Your task to perform on an android device: toggle sleep mode Image 0: 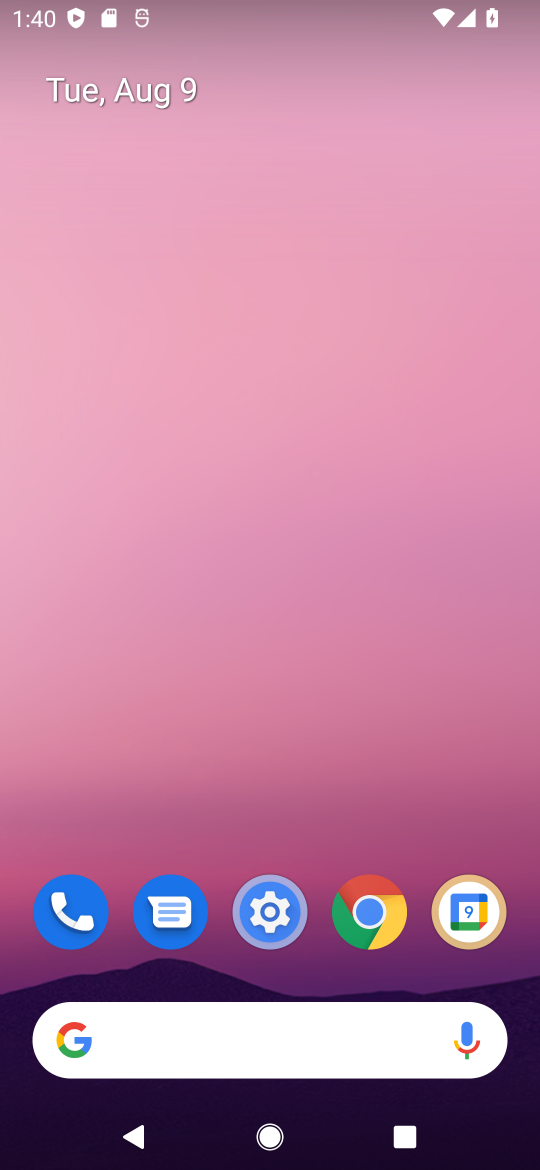
Step 0: click (269, 913)
Your task to perform on an android device: toggle sleep mode Image 1: 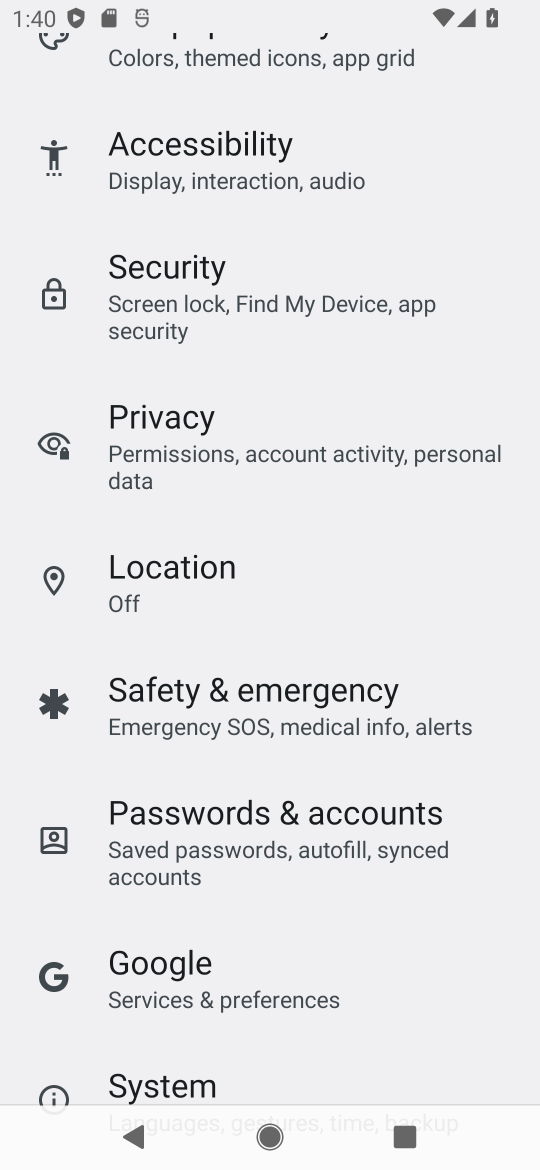
Step 1: drag from (287, 246) to (497, 1147)
Your task to perform on an android device: toggle sleep mode Image 2: 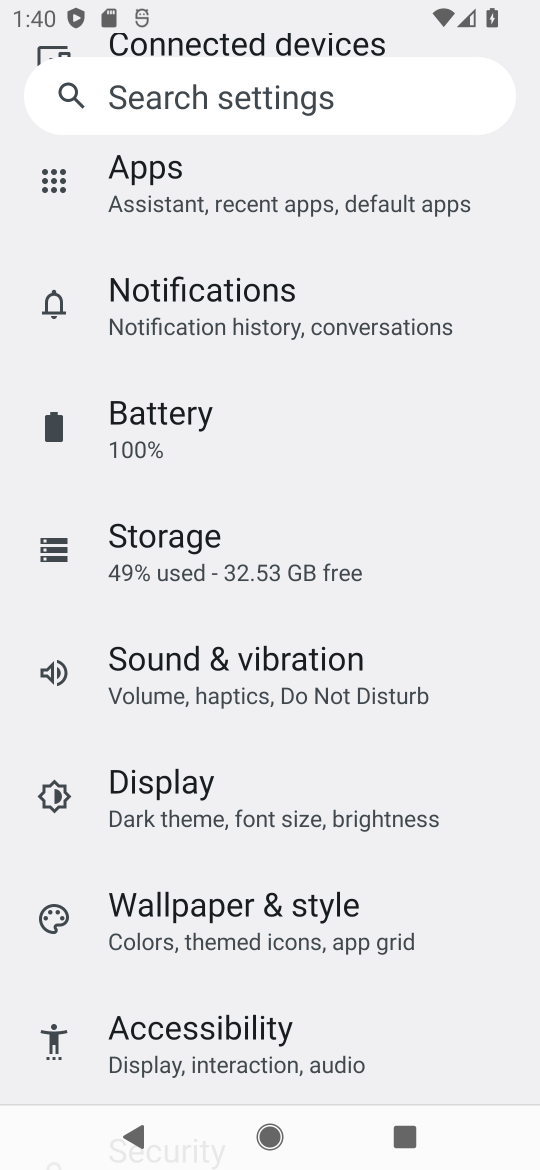
Step 2: click (185, 773)
Your task to perform on an android device: toggle sleep mode Image 3: 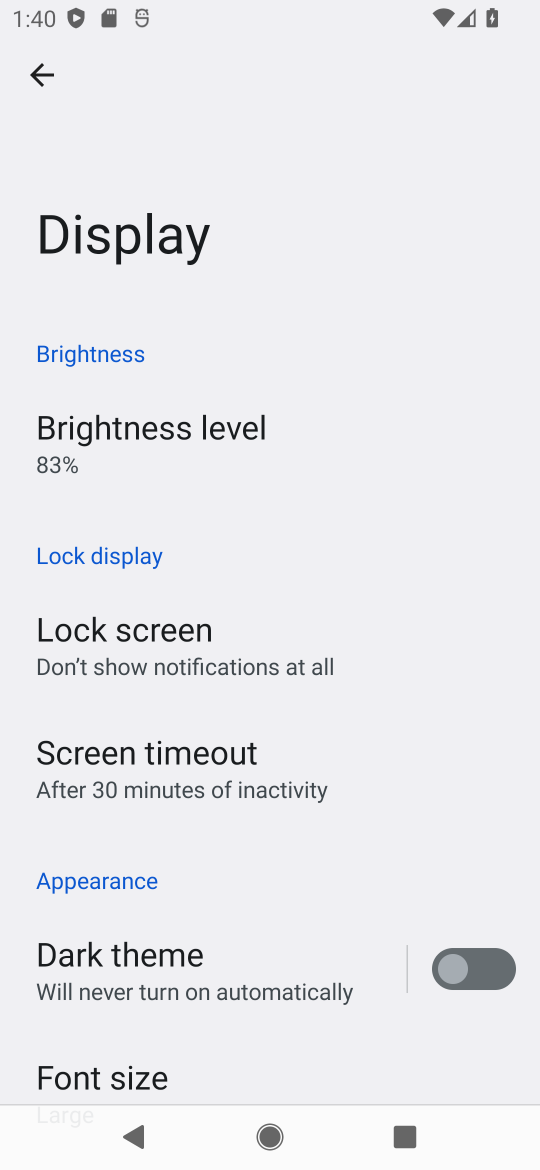
Step 3: task complete